Your task to perform on an android device: Open Wikipedia Image 0: 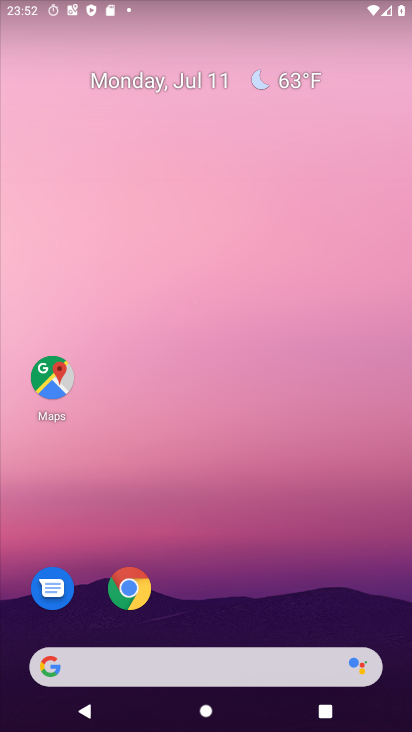
Step 0: click (129, 585)
Your task to perform on an android device: Open Wikipedia Image 1: 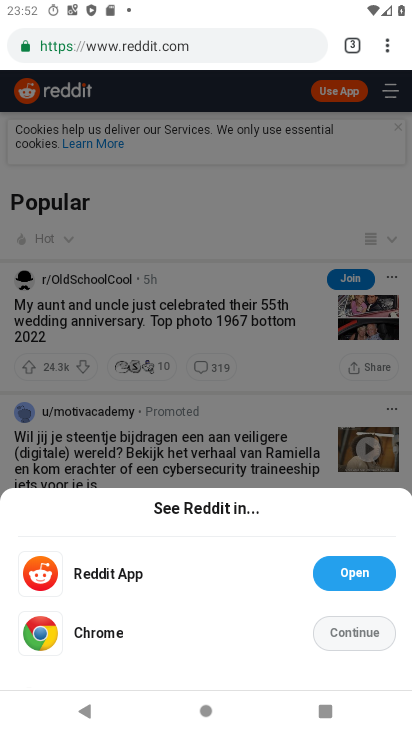
Step 1: click (389, 50)
Your task to perform on an android device: Open Wikipedia Image 2: 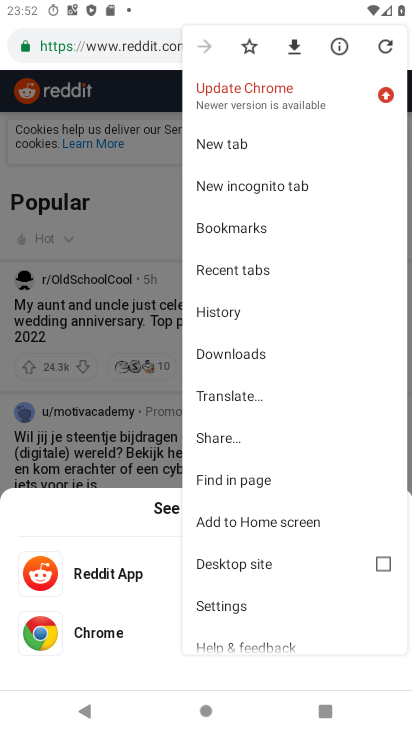
Step 2: click (225, 141)
Your task to perform on an android device: Open Wikipedia Image 3: 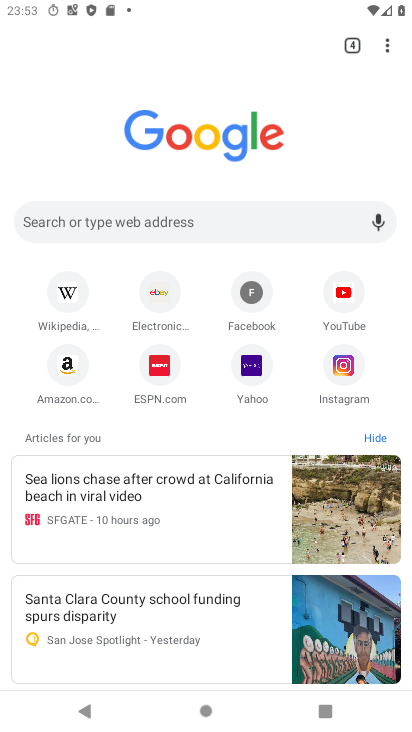
Step 3: click (67, 296)
Your task to perform on an android device: Open Wikipedia Image 4: 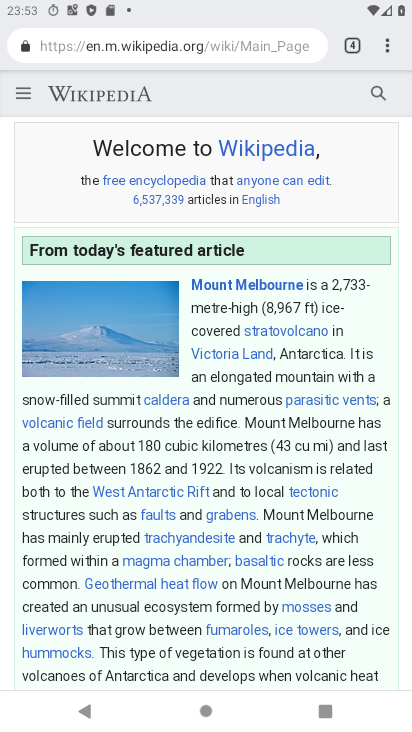
Step 4: task complete